Your task to perform on an android device: Open the calendar app, open the side menu, and click the "Day" option Image 0: 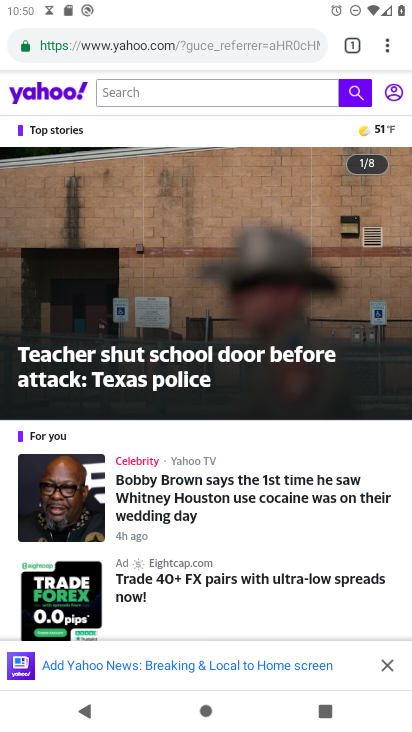
Step 0: press home button
Your task to perform on an android device: Open the calendar app, open the side menu, and click the "Day" option Image 1: 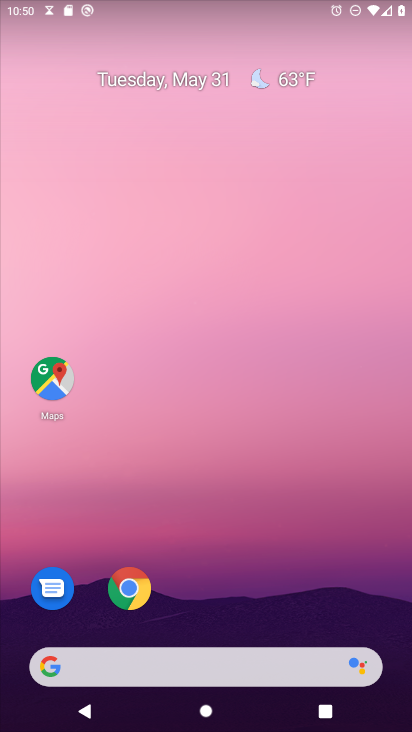
Step 1: drag from (220, 597) to (210, 38)
Your task to perform on an android device: Open the calendar app, open the side menu, and click the "Day" option Image 2: 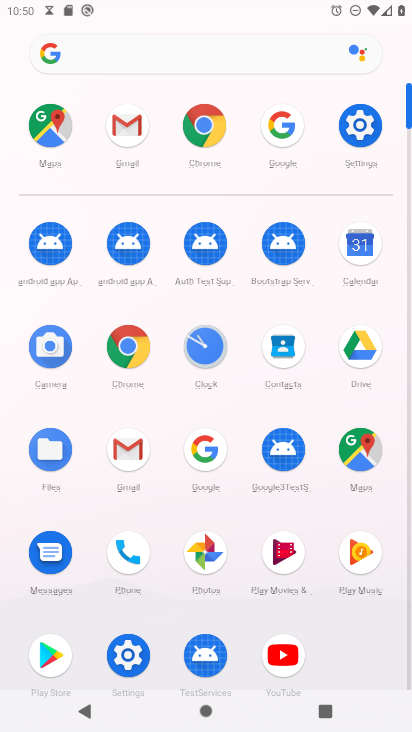
Step 2: click (361, 244)
Your task to perform on an android device: Open the calendar app, open the side menu, and click the "Day" option Image 3: 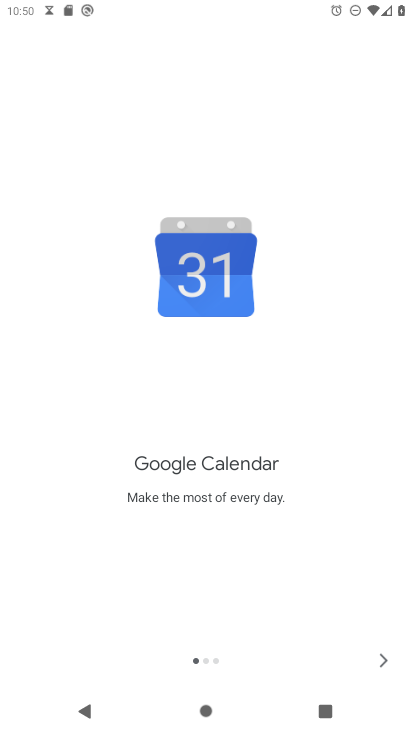
Step 3: click (377, 659)
Your task to perform on an android device: Open the calendar app, open the side menu, and click the "Day" option Image 4: 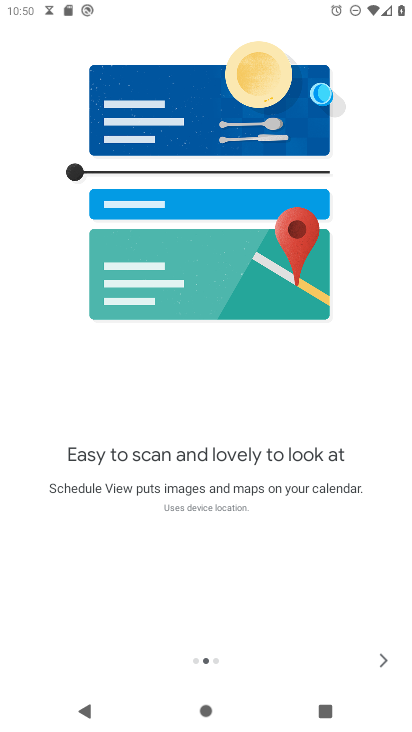
Step 4: click (377, 659)
Your task to perform on an android device: Open the calendar app, open the side menu, and click the "Day" option Image 5: 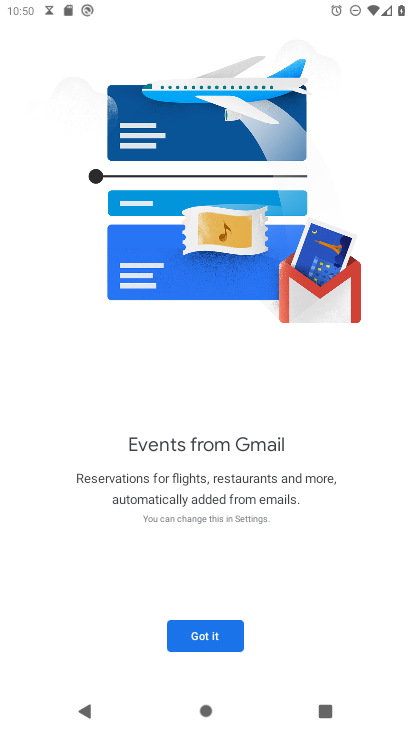
Step 5: click (221, 635)
Your task to perform on an android device: Open the calendar app, open the side menu, and click the "Day" option Image 6: 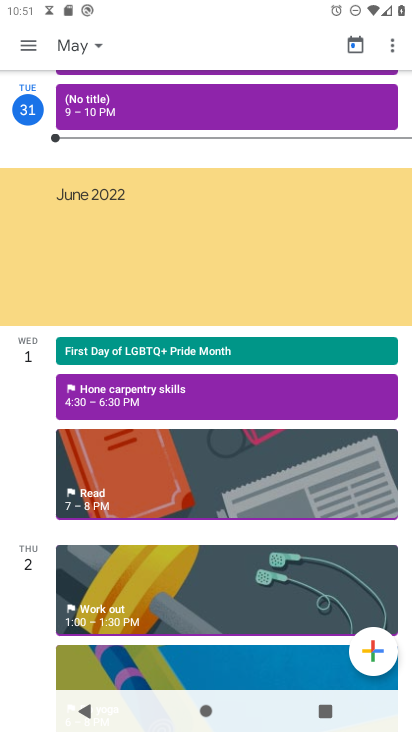
Step 6: click (21, 48)
Your task to perform on an android device: Open the calendar app, open the side menu, and click the "Day" option Image 7: 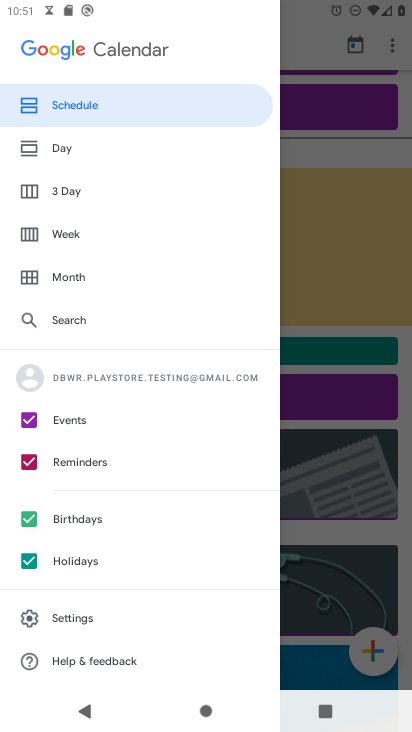
Step 7: click (83, 151)
Your task to perform on an android device: Open the calendar app, open the side menu, and click the "Day" option Image 8: 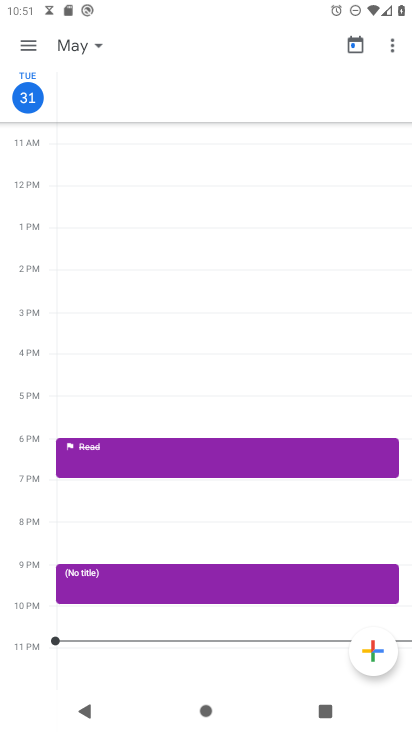
Step 8: task complete